Your task to perform on an android device: toggle priority inbox in the gmail app Image 0: 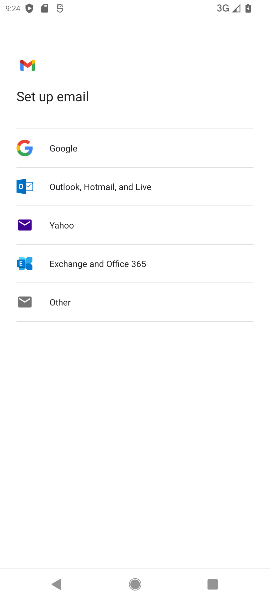
Step 0: press home button
Your task to perform on an android device: toggle priority inbox in the gmail app Image 1: 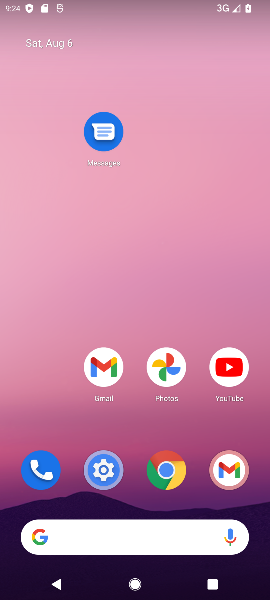
Step 1: drag from (167, 512) to (146, 140)
Your task to perform on an android device: toggle priority inbox in the gmail app Image 2: 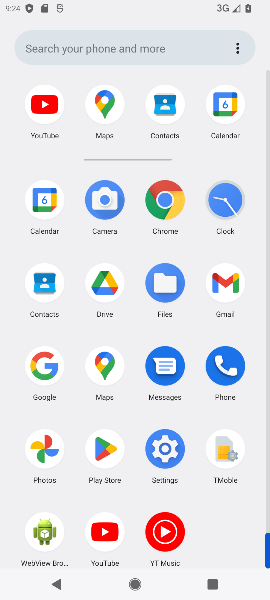
Step 2: click (235, 290)
Your task to perform on an android device: toggle priority inbox in the gmail app Image 3: 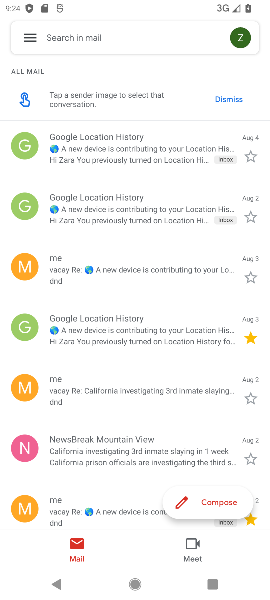
Step 3: click (29, 39)
Your task to perform on an android device: toggle priority inbox in the gmail app Image 4: 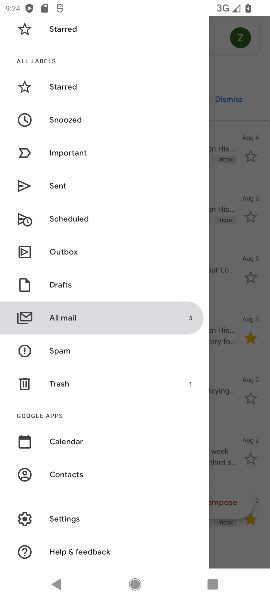
Step 4: drag from (94, 469) to (84, 276)
Your task to perform on an android device: toggle priority inbox in the gmail app Image 5: 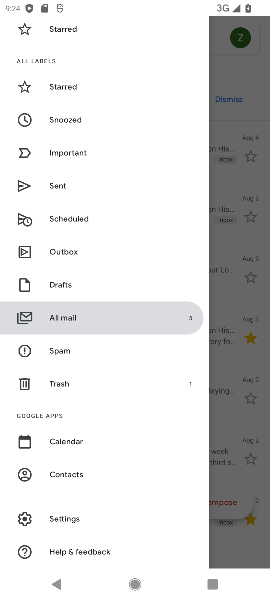
Step 5: click (80, 519)
Your task to perform on an android device: toggle priority inbox in the gmail app Image 6: 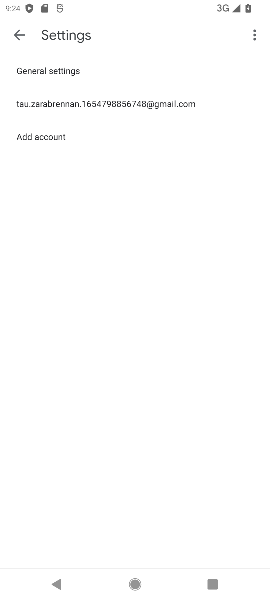
Step 6: click (141, 106)
Your task to perform on an android device: toggle priority inbox in the gmail app Image 7: 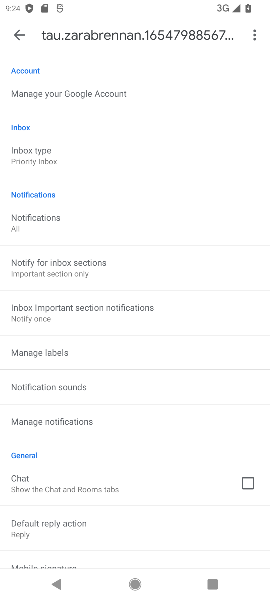
Step 7: click (52, 159)
Your task to perform on an android device: toggle priority inbox in the gmail app Image 8: 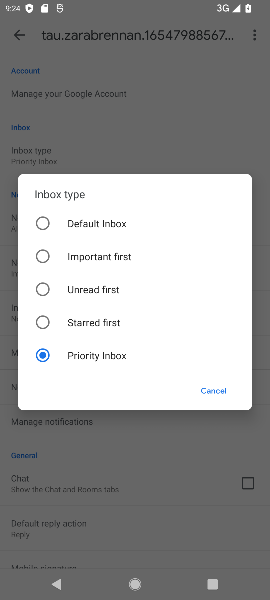
Step 8: click (63, 224)
Your task to perform on an android device: toggle priority inbox in the gmail app Image 9: 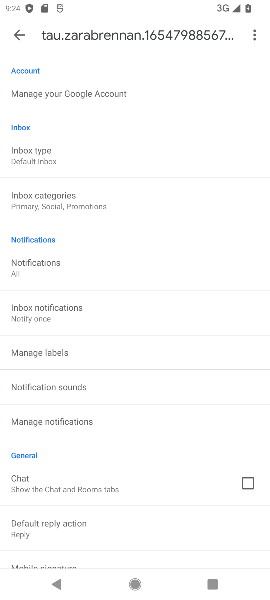
Step 9: task complete